Your task to perform on an android device: open app "Chime – Mobile Banking" (install if not already installed) and enter user name: "bullfrog@inbox.com" and password: "breaker" Image 0: 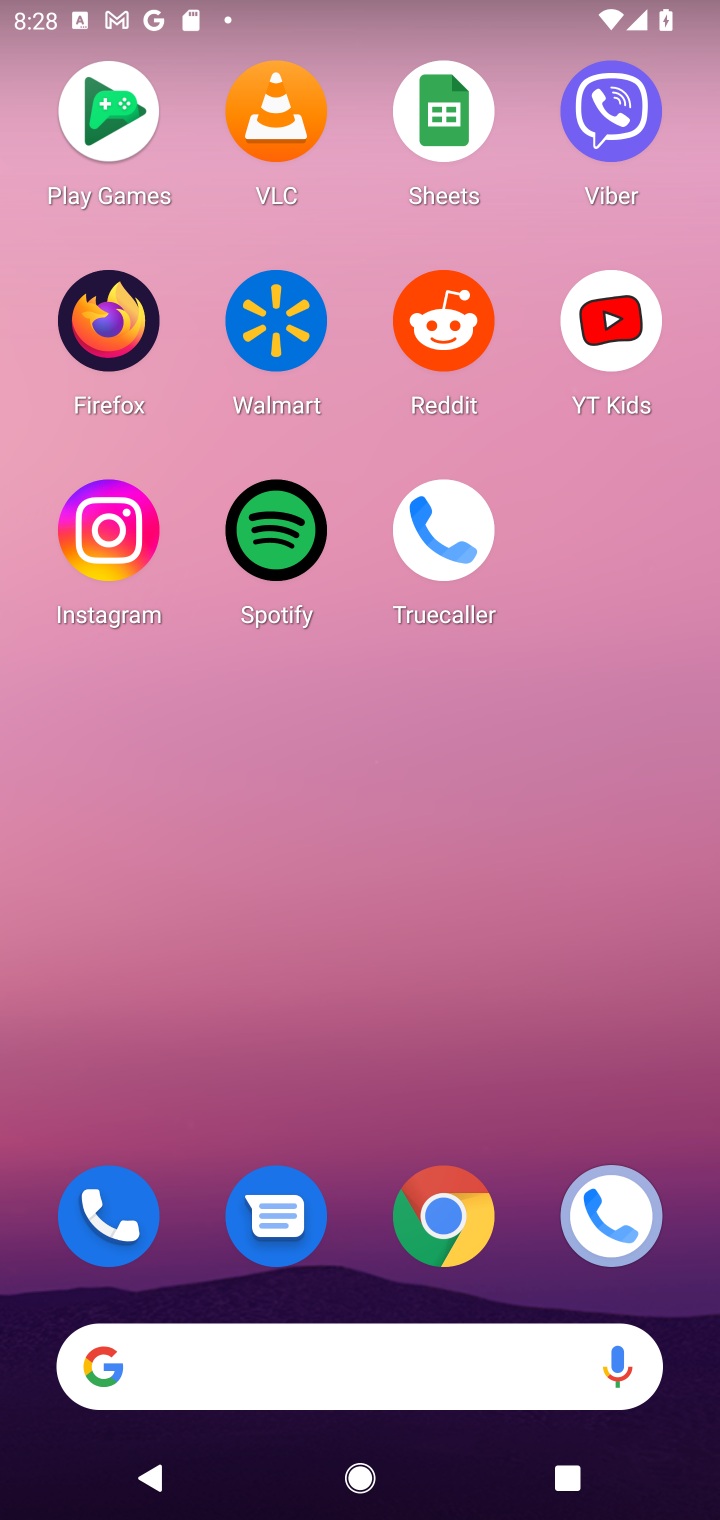
Step 0: press home button
Your task to perform on an android device: open app "Chime – Mobile Banking" (install if not already installed) and enter user name: "bullfrog@inbox.com" and password: "breaker" Image 1: 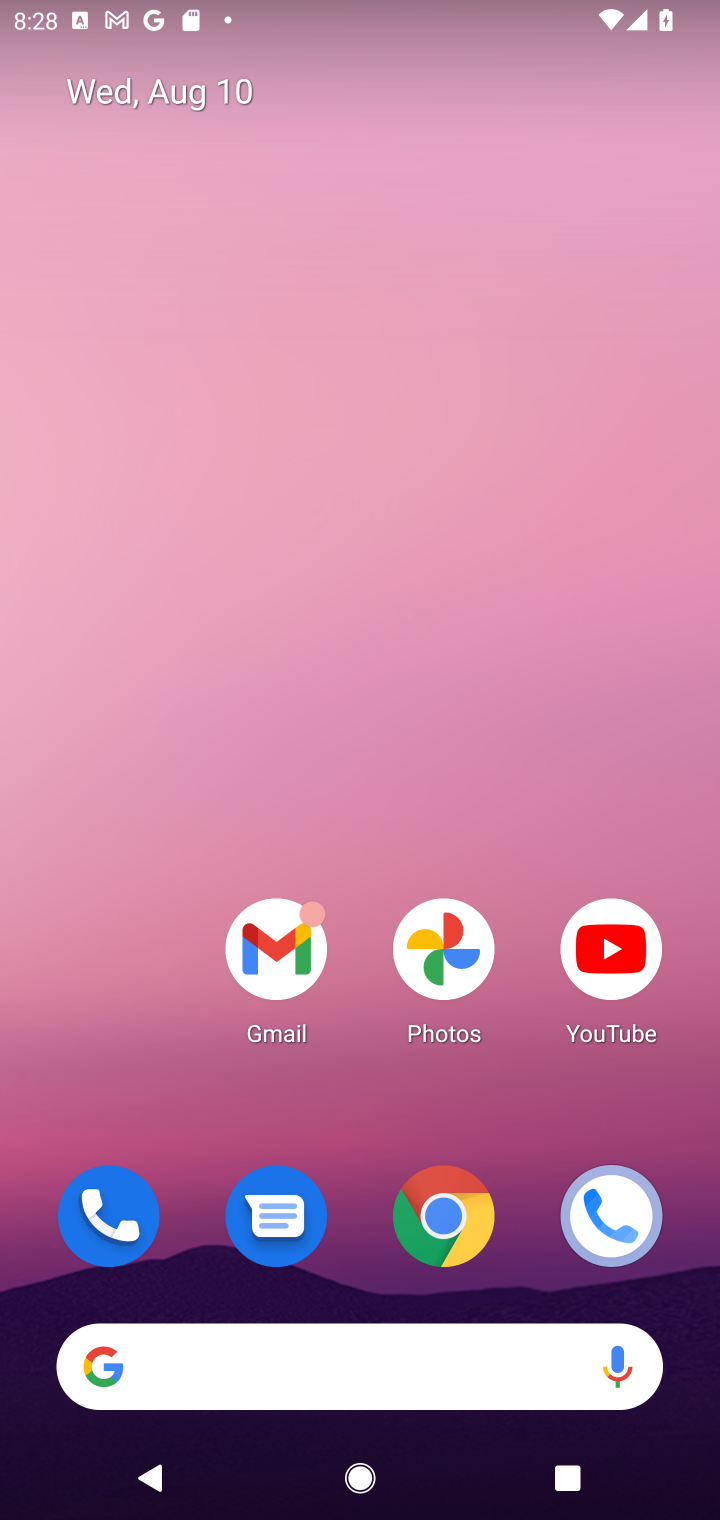
Step 1: drag from (281, 1270) to (318, 123)
Your task to perform on an android device: open app "Chime – Mobile Banking" (install if not already installed) and enter user name: "bullfrog@inbox.com" and password: "breaker" Image 2: 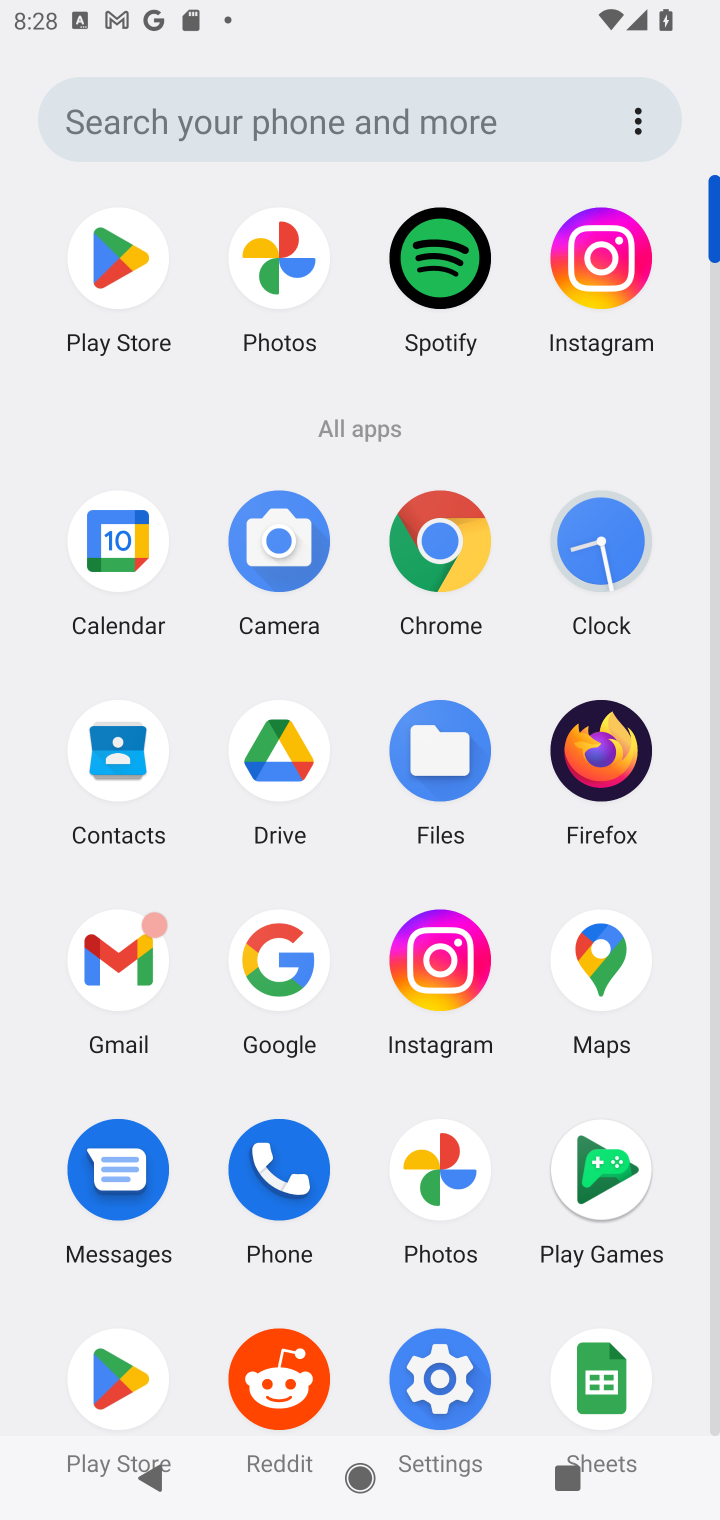
Step 2: click (131, 269)
Your task to perform on an android device: open app "Chime – Mobile Banking" (install if not already installed) and enter user name: "bullfrog@inbox.com" and password: "breaker" Image 3: 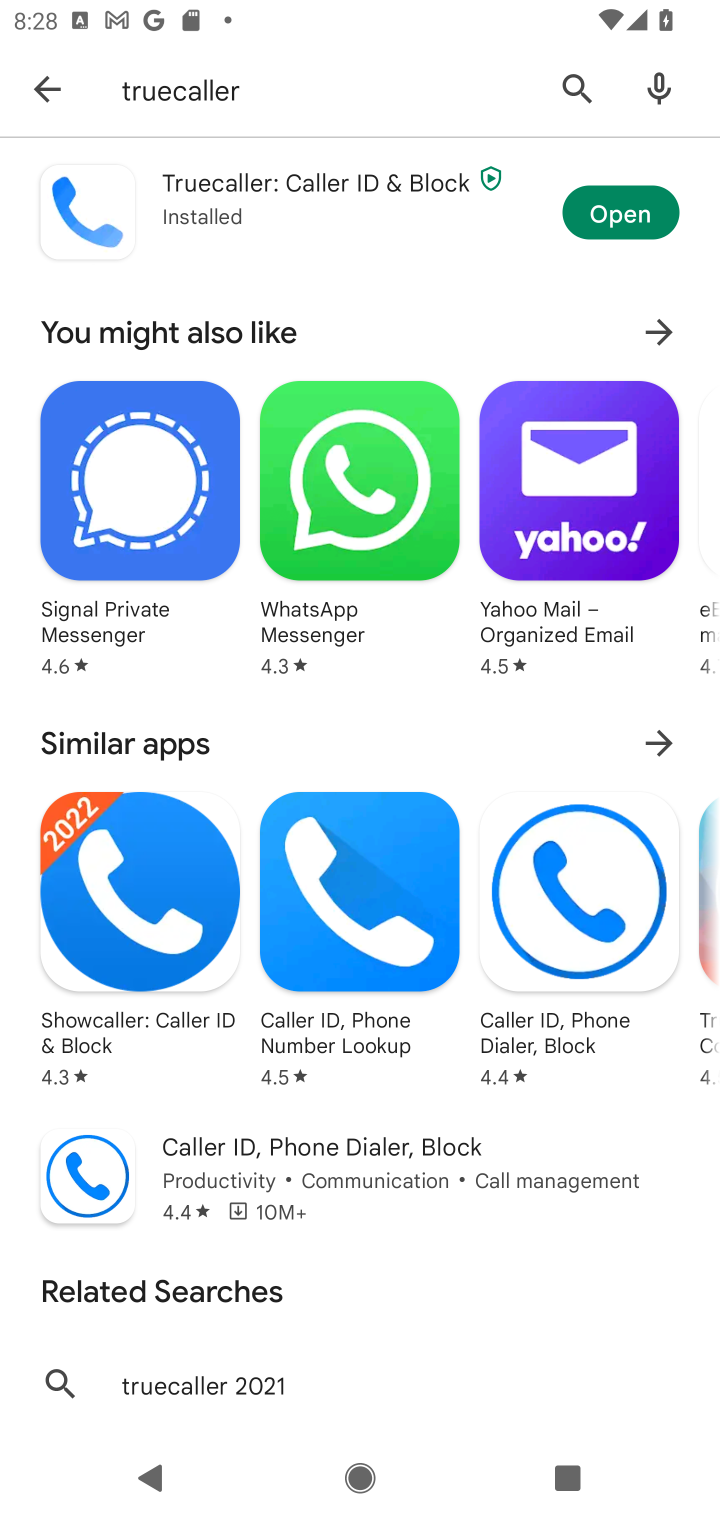
Step 3: click (585, 84)
Your task to perform on an android device: open app "Chime – Mobile Banking" (install if not already installed) and enter user name: "bullfrog@inbox.com" and password: "breaker" Image 4: 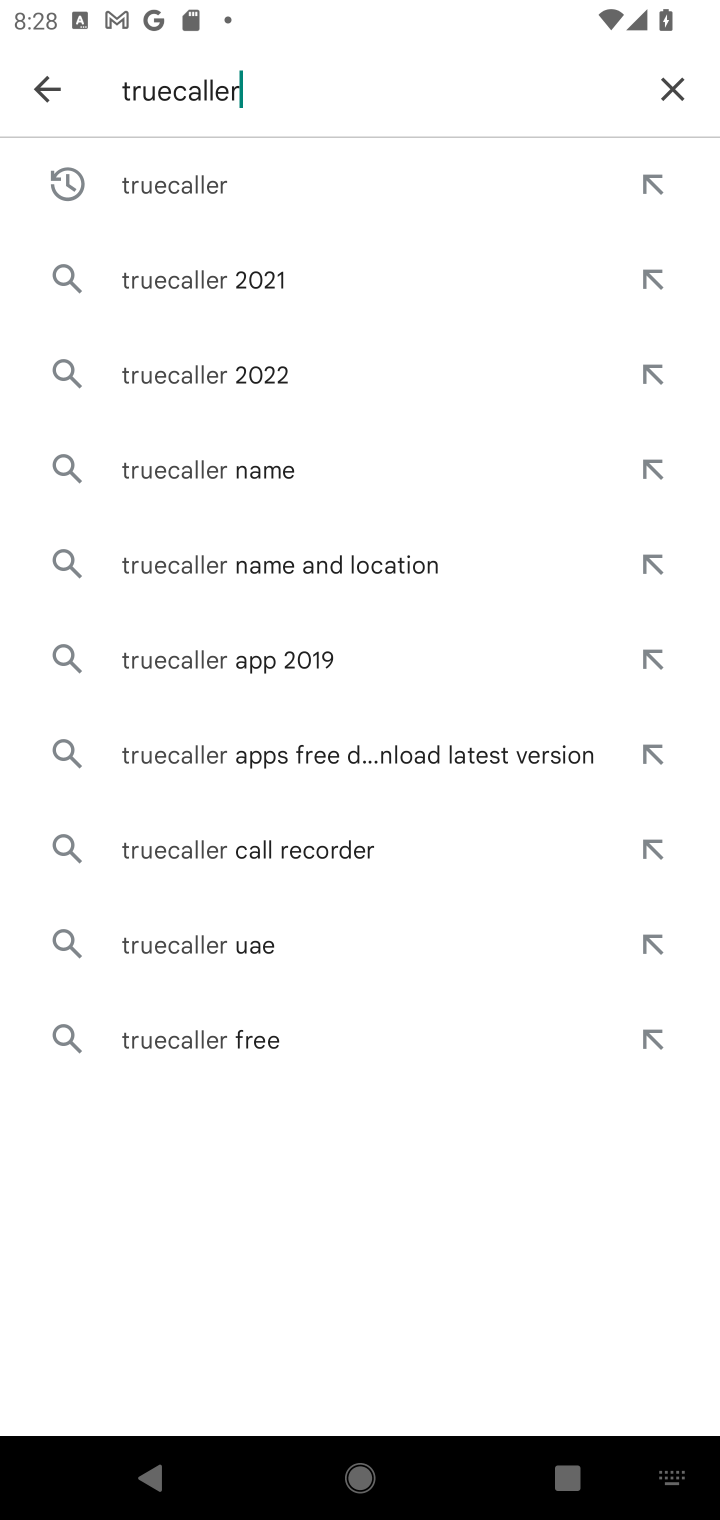
Step 4: click (668, 72)
Your task to perform on an android device: open app "Chime – Mobile Banking" (install if not already installed) and enter user name: "bullfrog@inbox.com" and password: "breaker" Image 5: 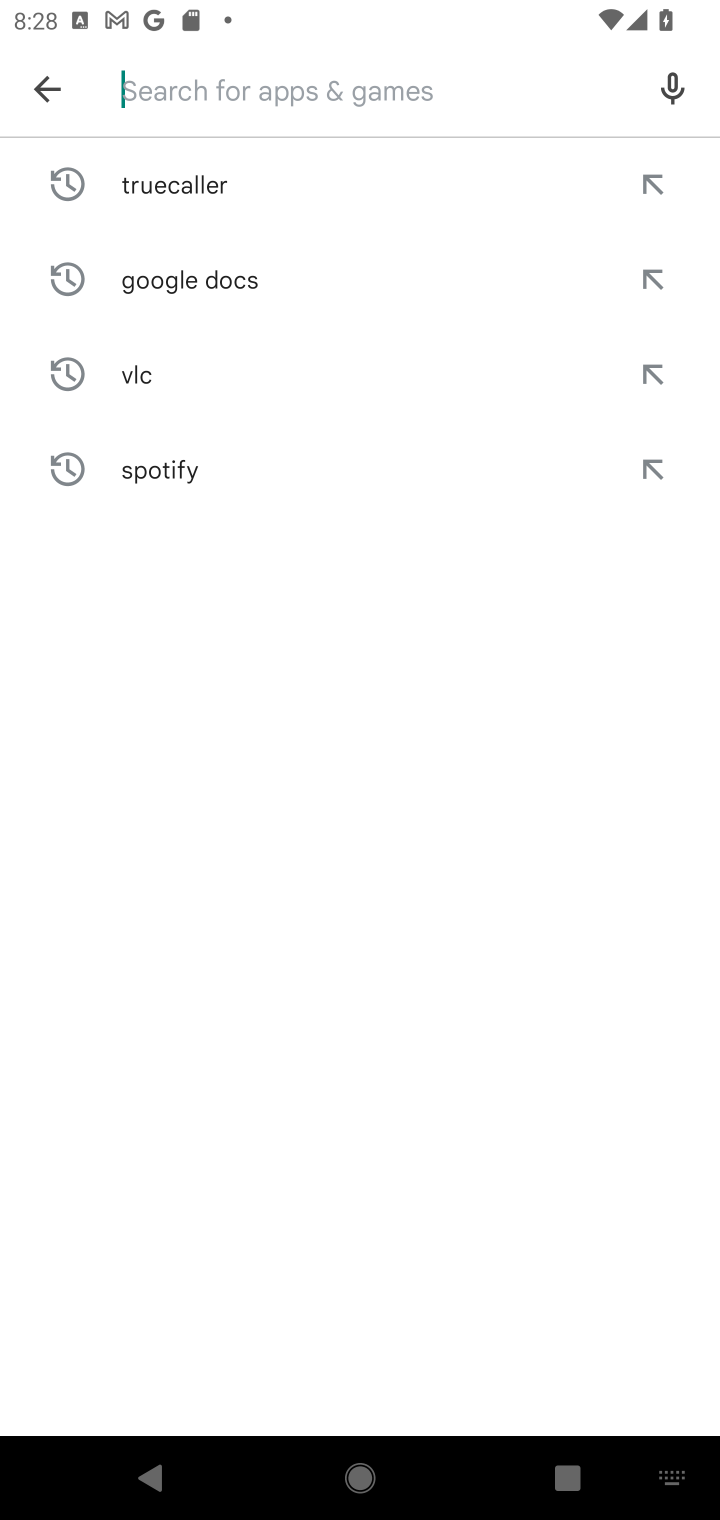
Step 5: click (227, 66)
Your task to perform on an android device: open app "Chime – Mobile Banking" (install if not already installed) and enter user name: "bullfrog@inbox.com" and password: "breaker" Image 6: 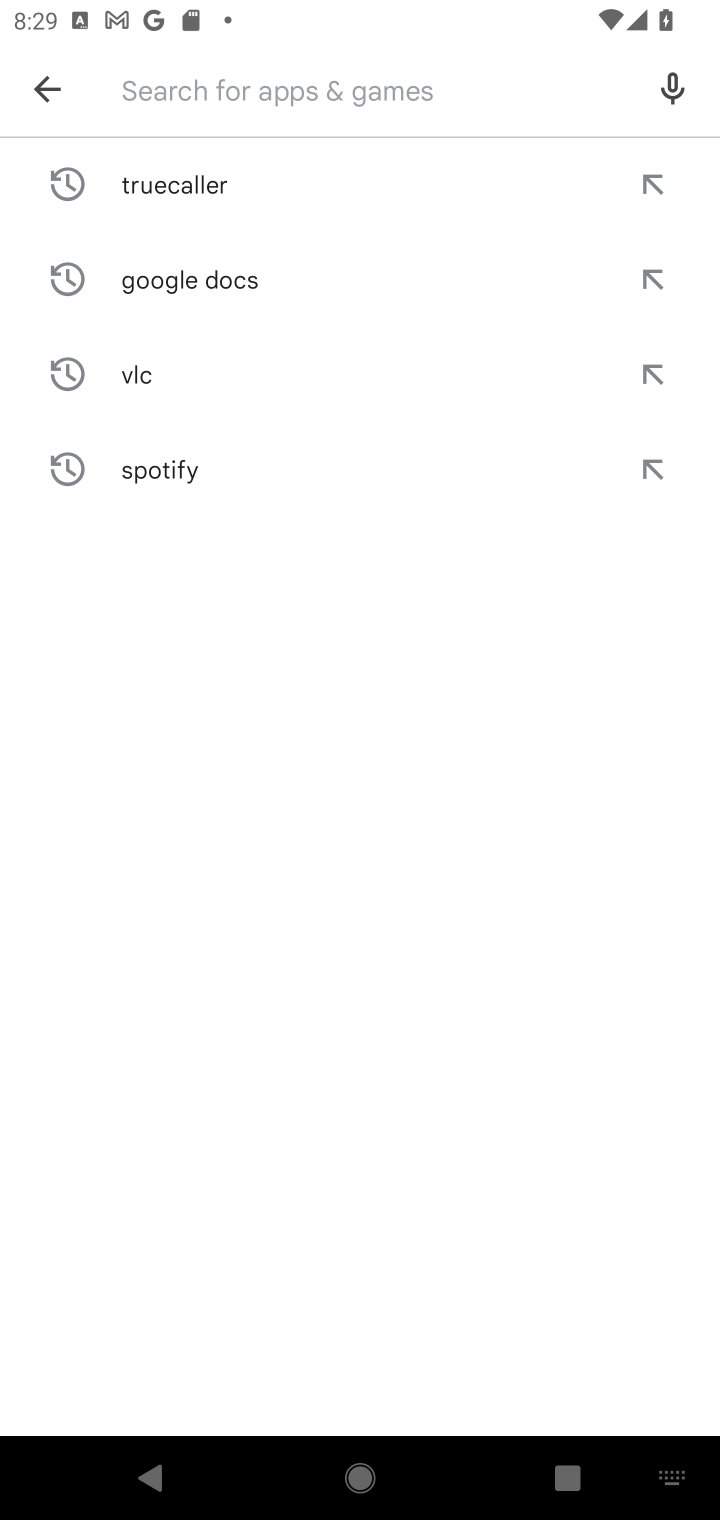
Step 6: type "Chime"
Your task to perform on an android device: open app "Chime – Mobile Banking" (install if not already installed) and enter user name: "bullfrog@inbox.com" and password: "breaker" Image 7: 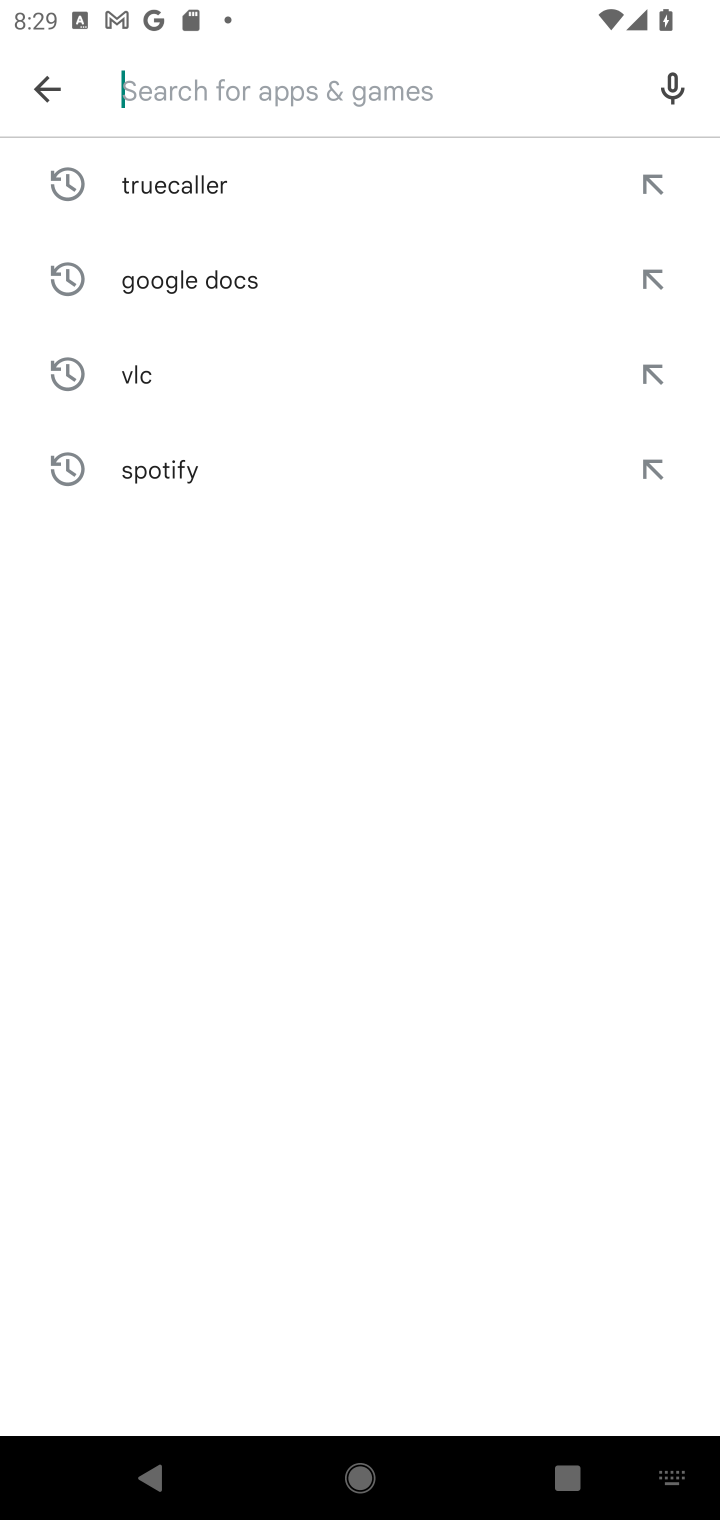
Step 7: click (347, 642)
Your task to perform on an android device: open app "Chime – Mobile Banking" (install if not already installed) and enter user name: "bullfrog@inbox.com" and password: "breaker" Image 8: 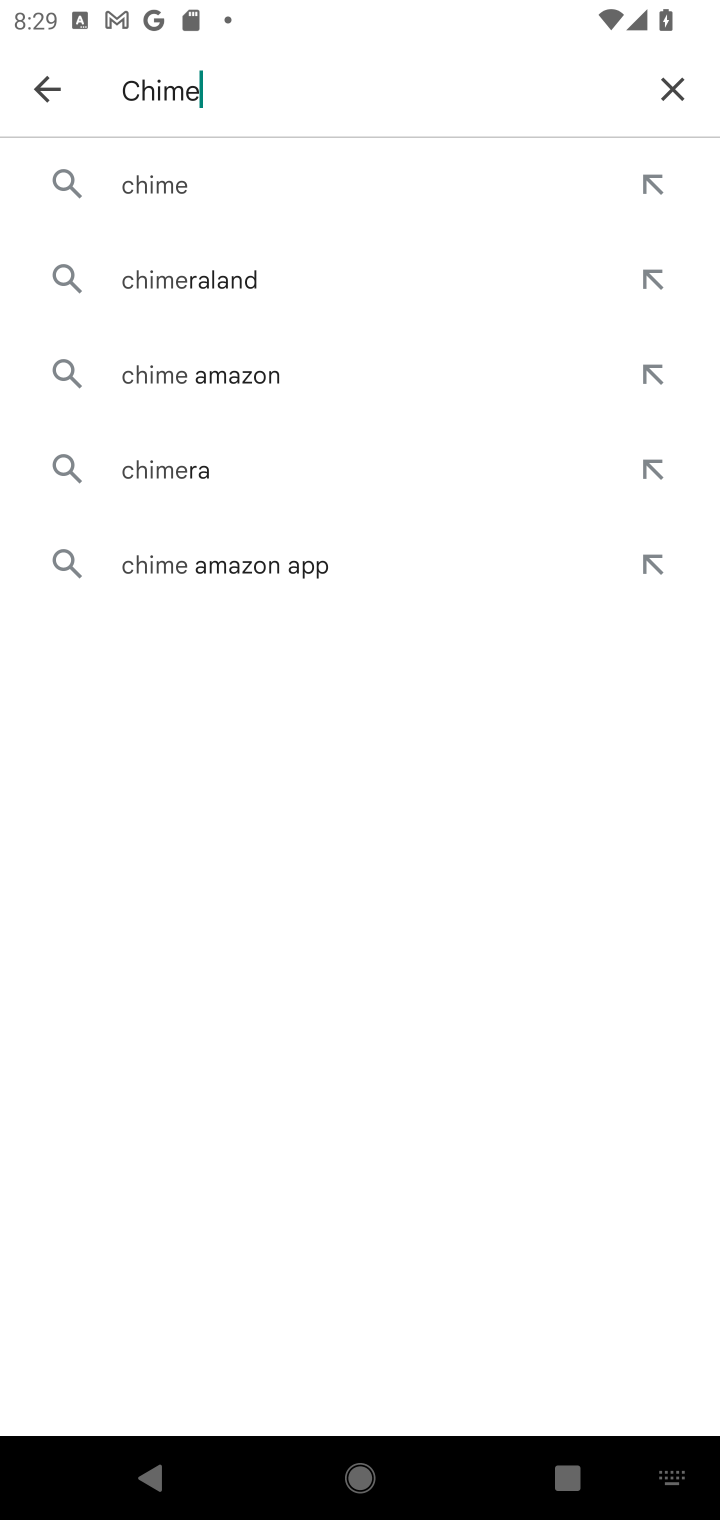
Step 8: click (151, 116)
Your task to perform on an android device: open app "Chime – Mobile Banking" (install if not already installed) and enter user name: "bullfrog@inbox.com" and password: "breaker" Image 9: 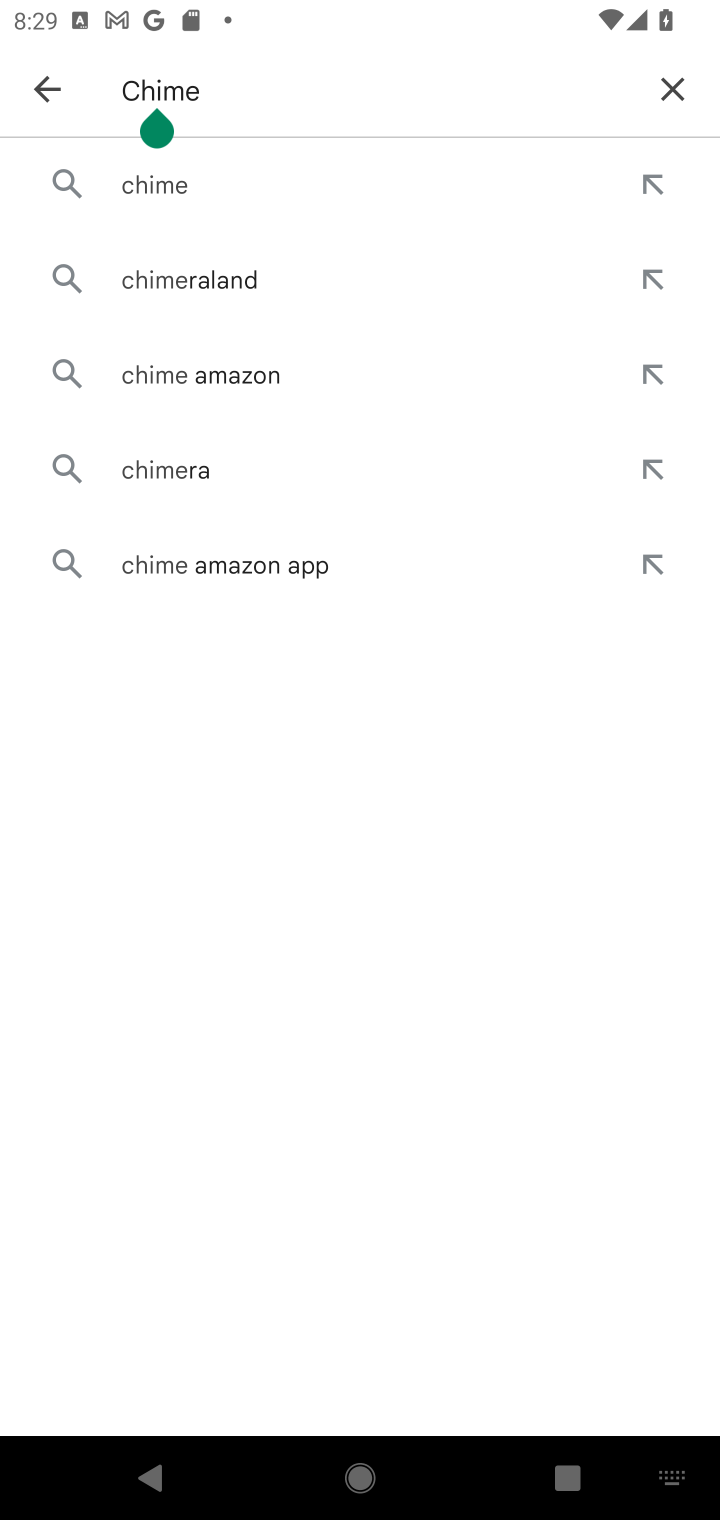
Step 9: click (169, 187)
Your task to perform on an android device: open app "Chime – Mobile Banking" (install if not already installed) and enter user name: "bullfrog@inbox.com" and password: "breaker" Image 10: 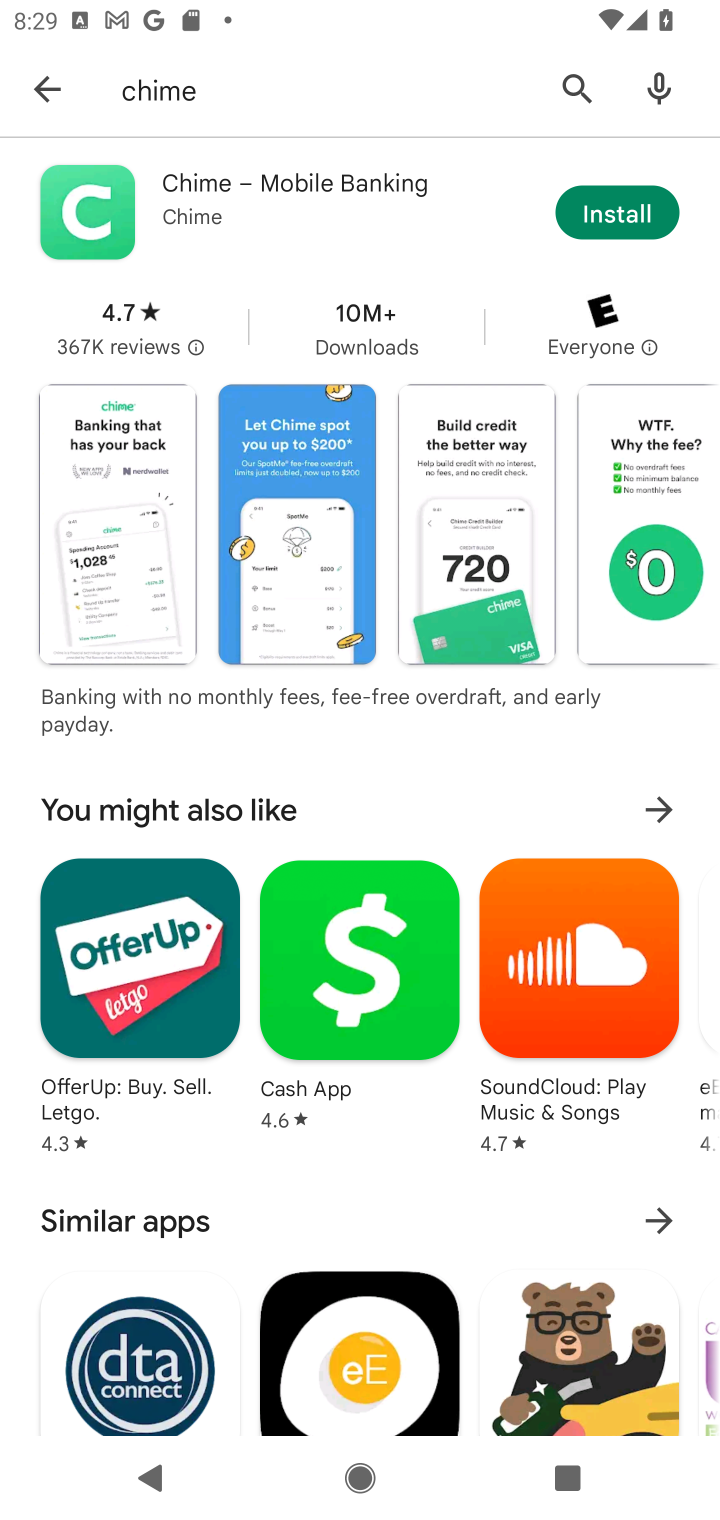
Step 10: click (612, 222)
Your task to perform on an android device: open app "Chime – Mobile Banking" (install if not already installed) and enter user name: "bullfrog@inbox.com" and password: "breaker" Image 11: 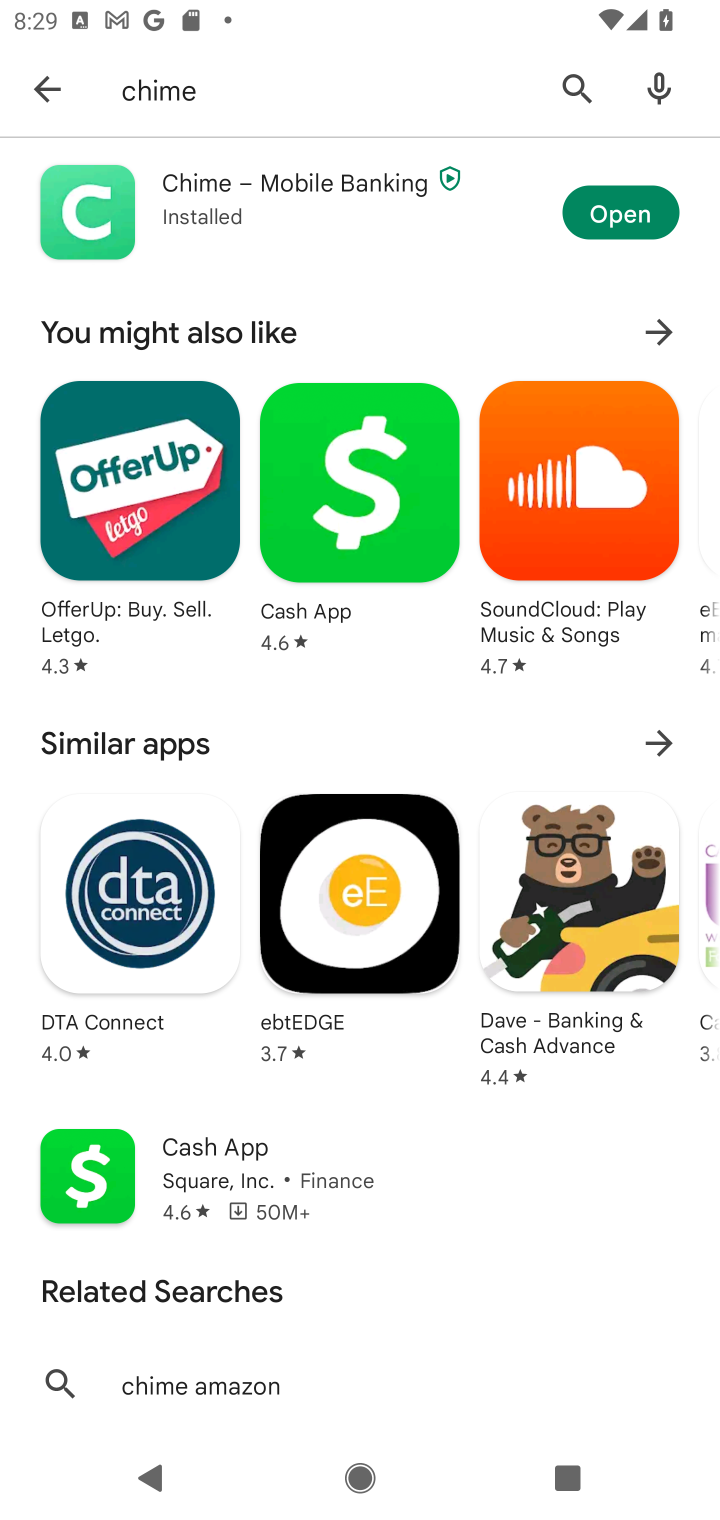
Step 11: click (620, 216)
Your task to perform on an android device: open app "Chime – Mobile Banking" (install if not already installed) and enter user name: "bullfrog@inbox.com" and password: "breaker" Image 12: 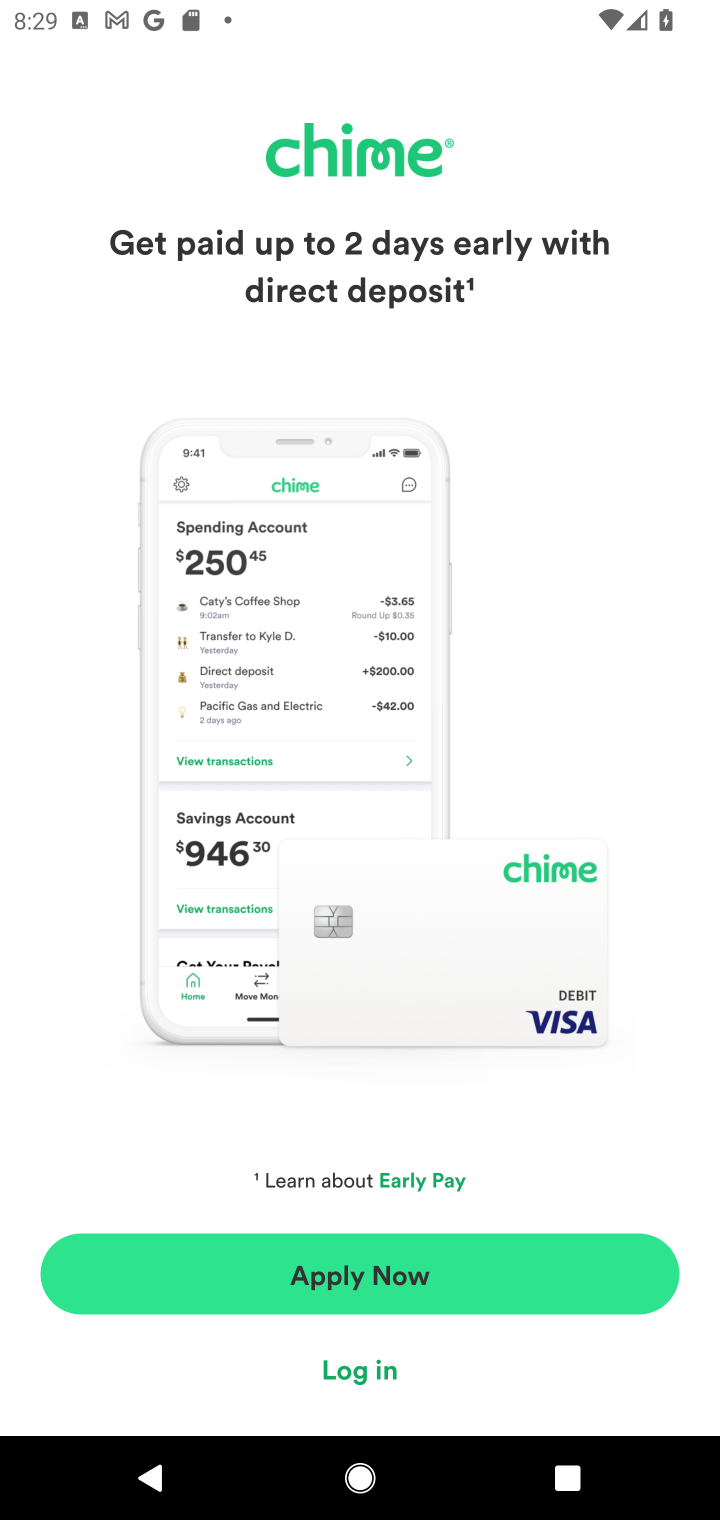
Step 12: click (382, 1364)
Your task to perform on an android device: open app "Chime – Mobile Banking" (install if not already installed) and enter user name: "bullfrog@inbox.com" and password: "breaker" Image 13: 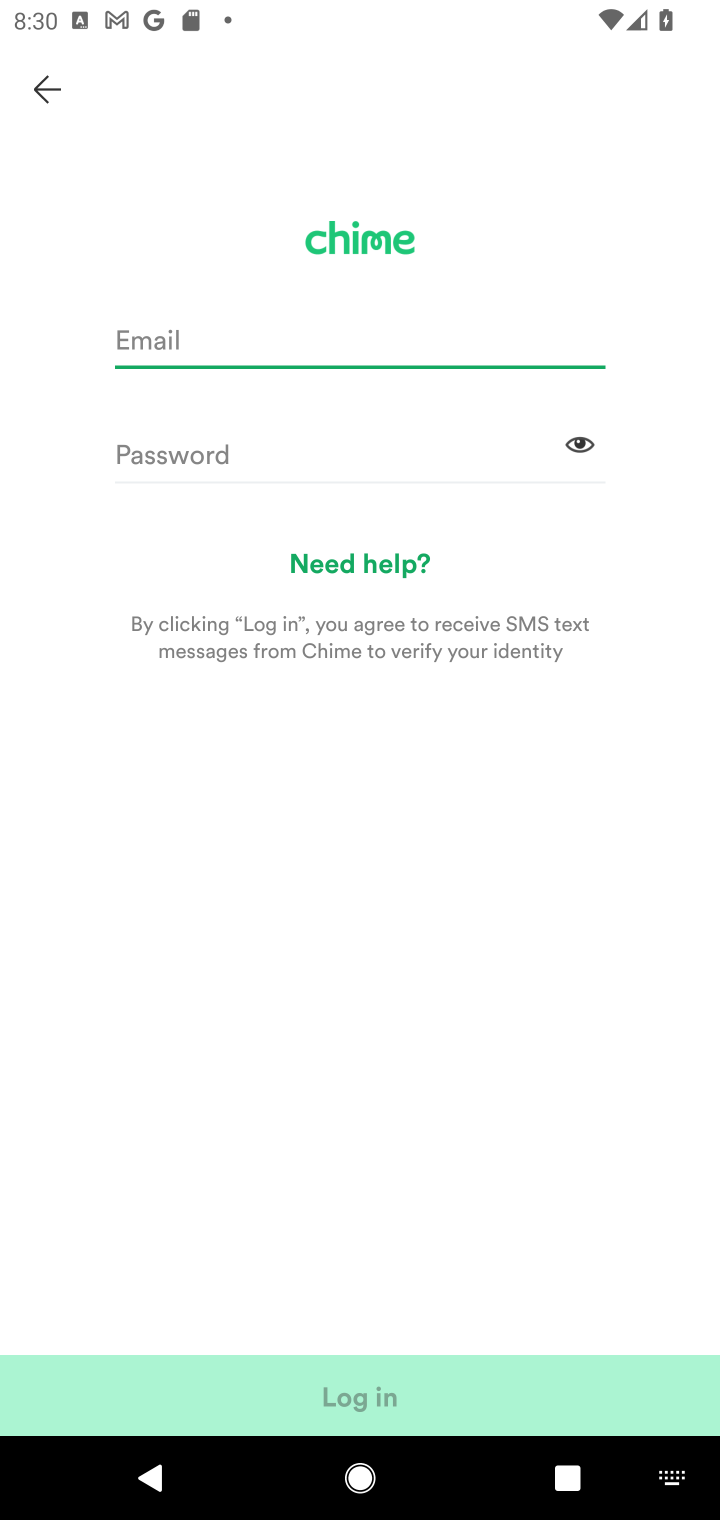
Step 13: click (181, 309)
Your task to perform on an android device: open app "Chime – Mobile Banking" (install if not already installed) and enter user name: "bullfrog@inbox.com" and password: "breaker" Image 14: 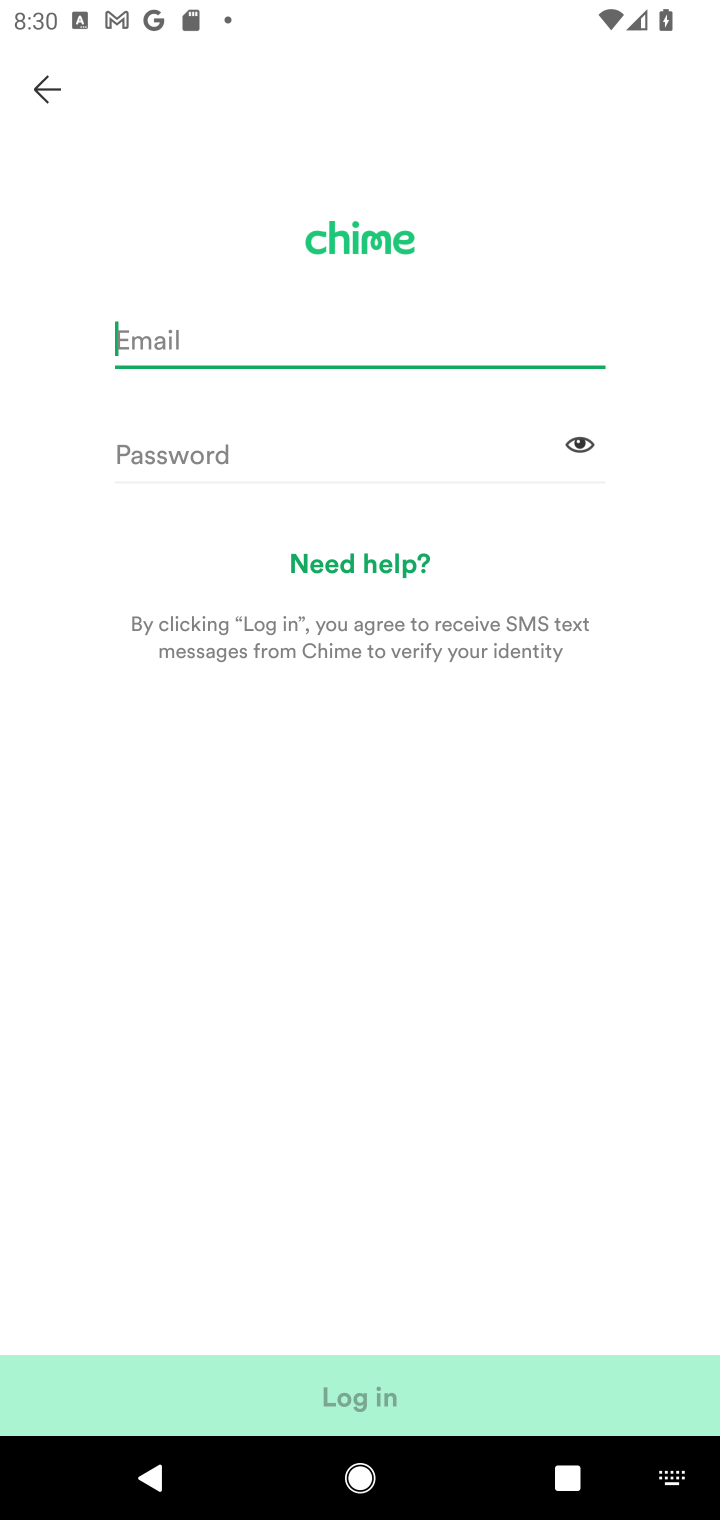
Step 14: type "bullfrog@inbox.com"
Your task to perform on an android device: open app "Chime – Mobile Banking" (install if not already installed) and enter user name: "bullfrog@inbox.com" and password: "breaker" Image 15: 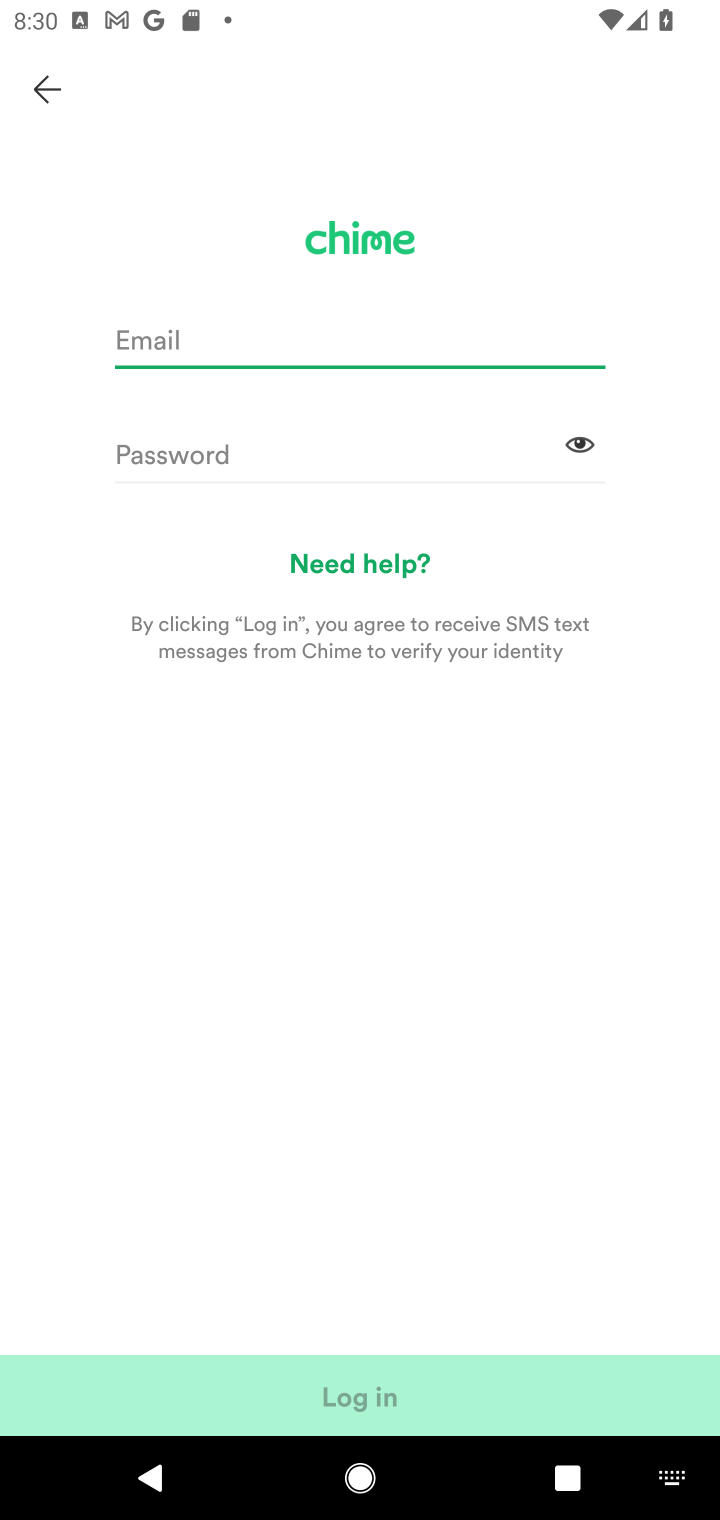
Step 15: click (213, 987)
Your task to perform on an android device: open app "Chime – Mobile Banking" (install if not already installed) and enter user name: "bullfrog@inbox.com" and password: "breaker" Image 16: 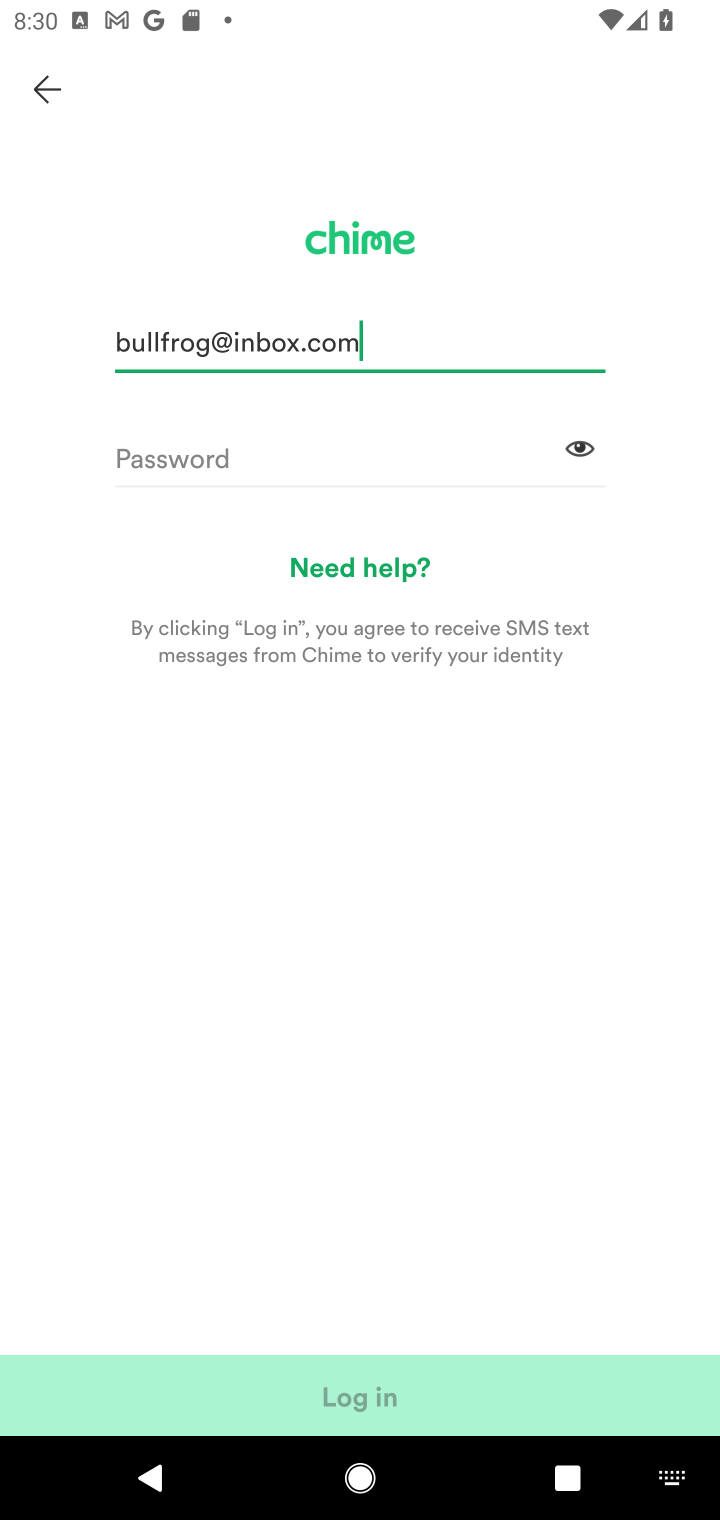
Step 16: click (155, 431)
Your task to perform on an android device: open app "Chime – Mobile Banking" (install if not already installed) and enter user name: "bullfrog@inbox.com" and password: "breaker" Image 17: 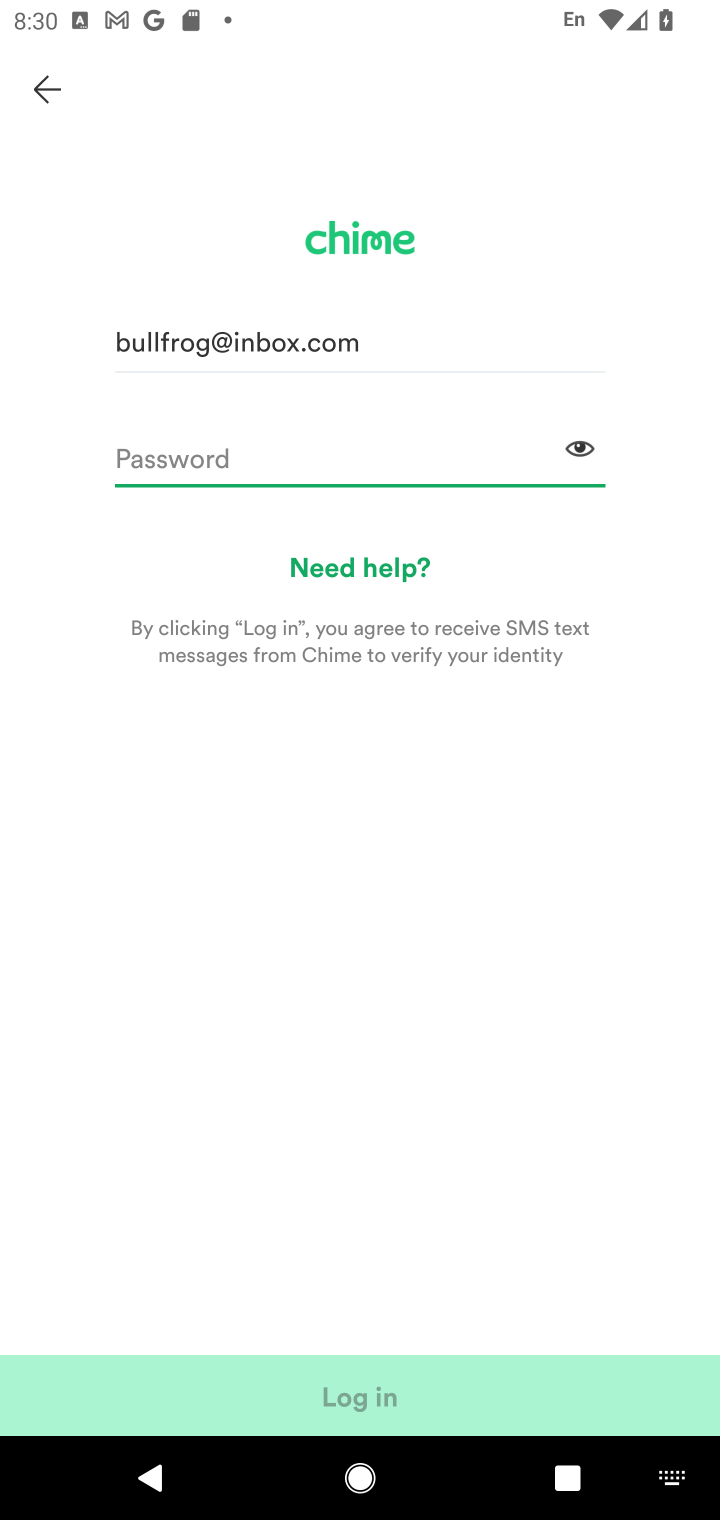
Step 17: type "breaker"
Your task to perform on an android device: open app "Chime – Mobile Banking" (install if not already installed) and enter user name: "bullfrog@inbox.com" and password: "breaker" Image 18: 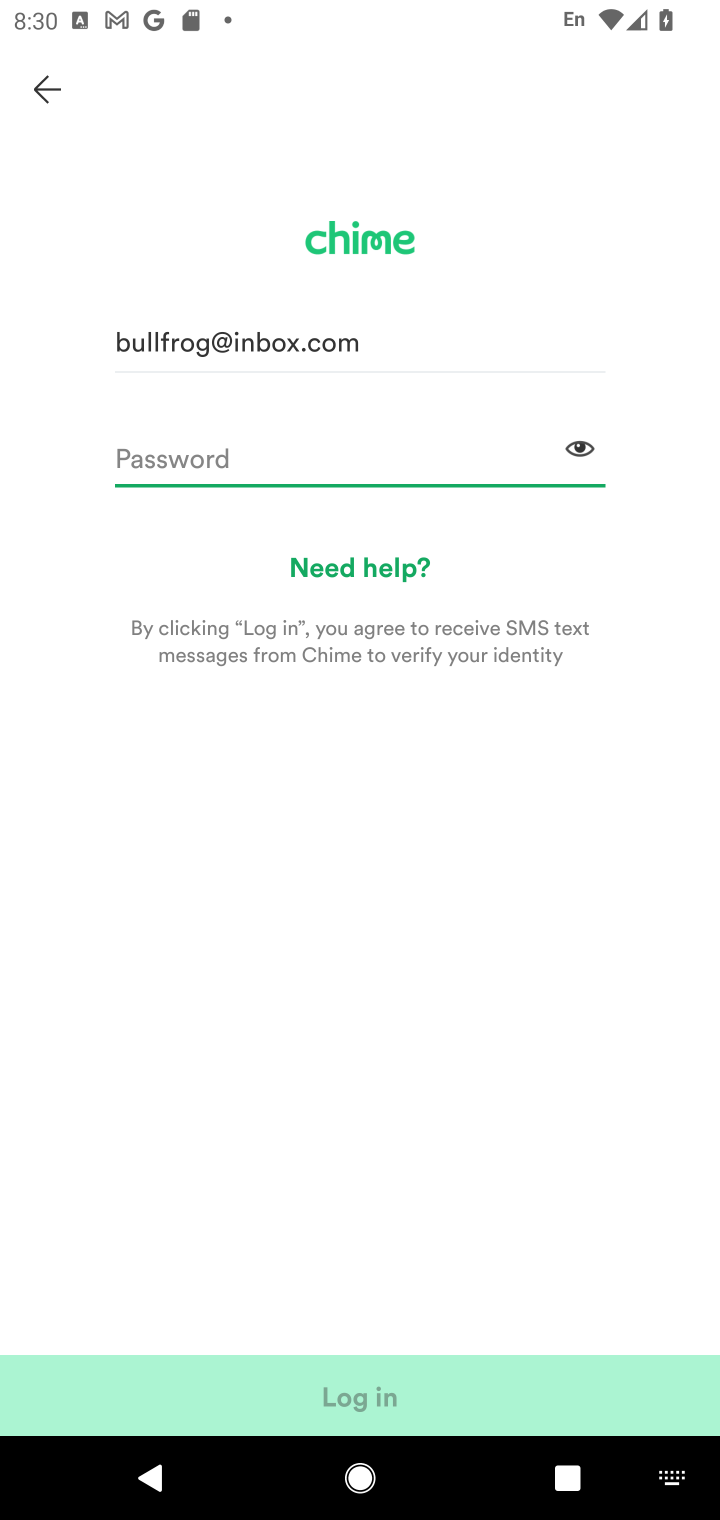
Step 18: click (421, 953)
Your task to perform on an android device: open app "Chime – Mobile Banking" (install if not already installed) and enter user name: "bullfrog@inbox.com" and password: "breaker" Image 19: 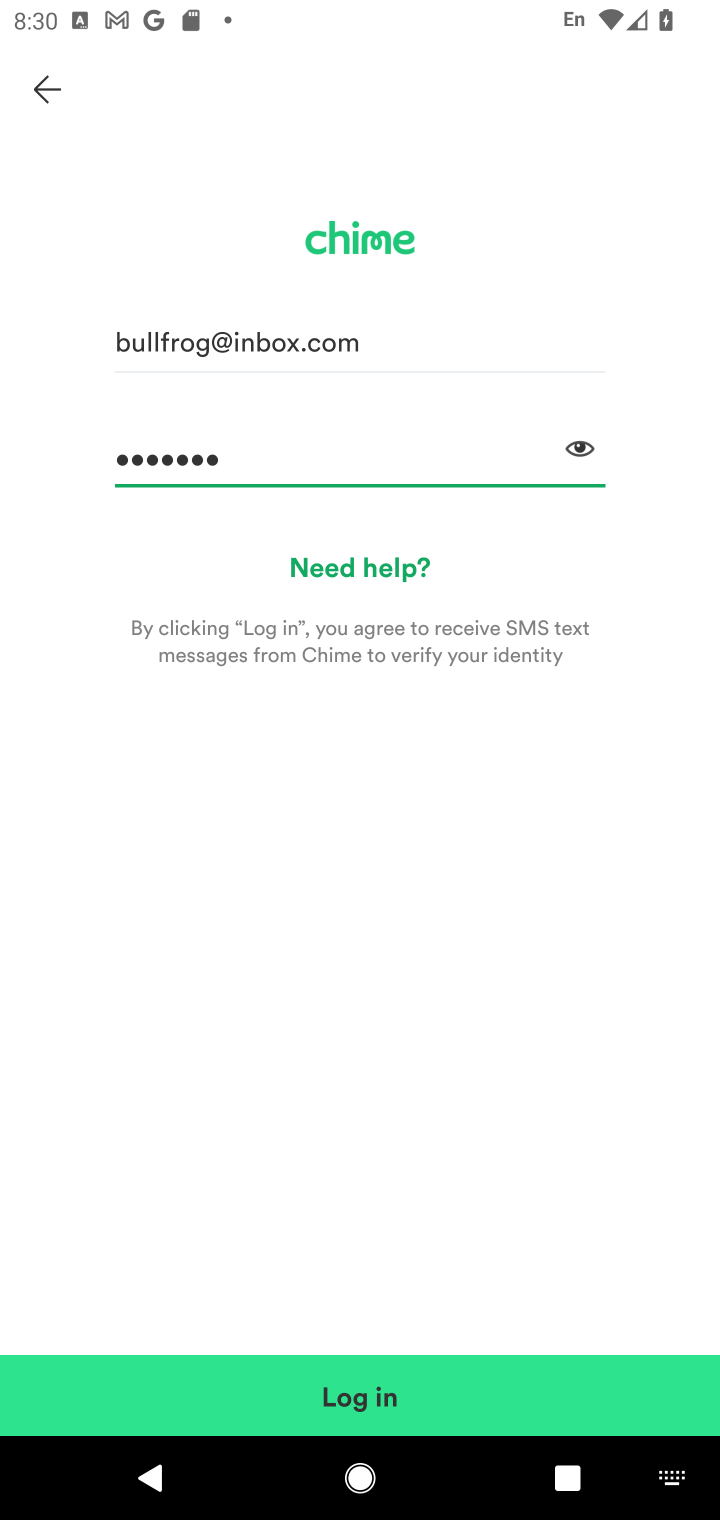
Step 19: click (370, 1377)
Your task to perform on an android device: open app "Chime – Mobile Banking" (install if not already installed) and enter user name: "bullfrog@inbox.com" and password: "breaker" Image 20: 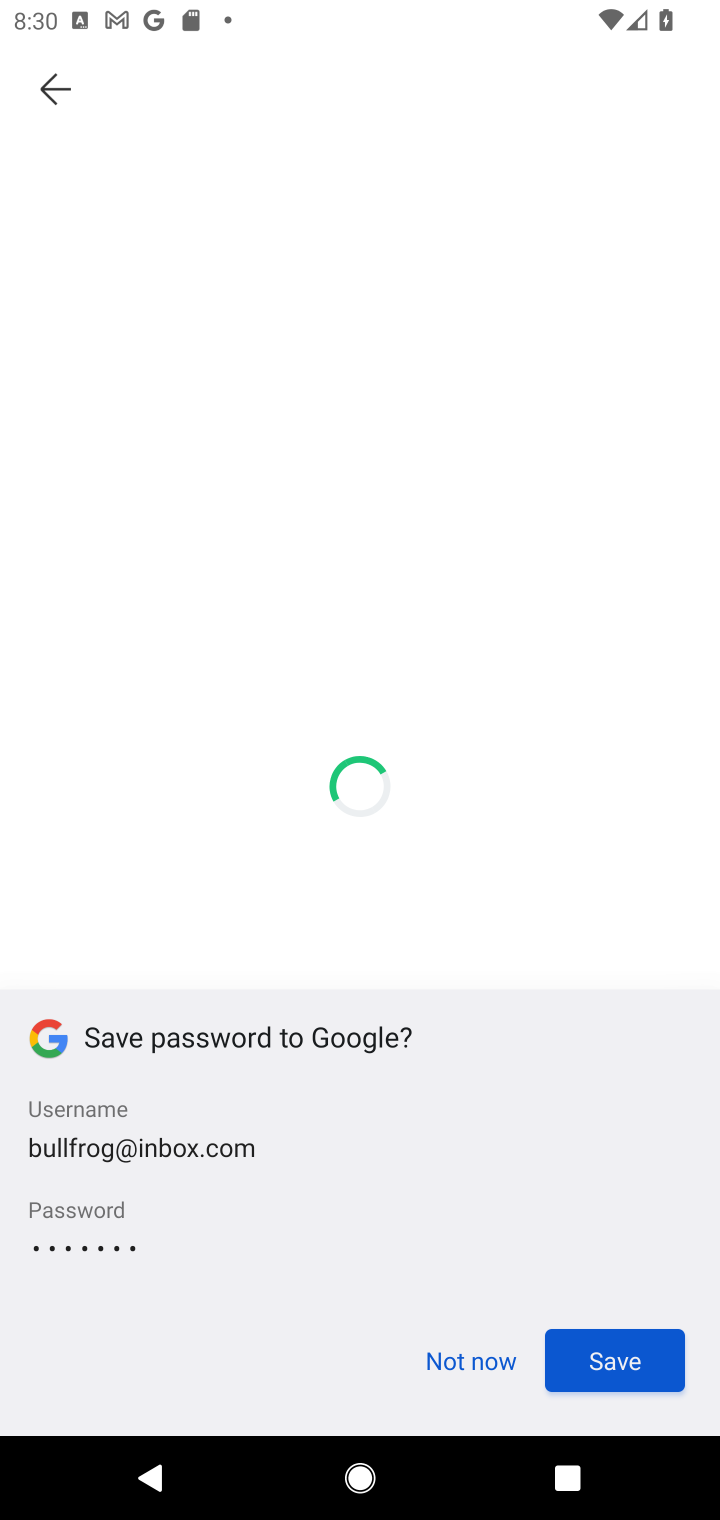
Step 20: click (439, 1336)
Your task to perform on an android device: open app "Chime – Mobile Banking" (install if not already installed) and enter user name: "bullfrog@inbox.com" and password: "breaker" Image 21: 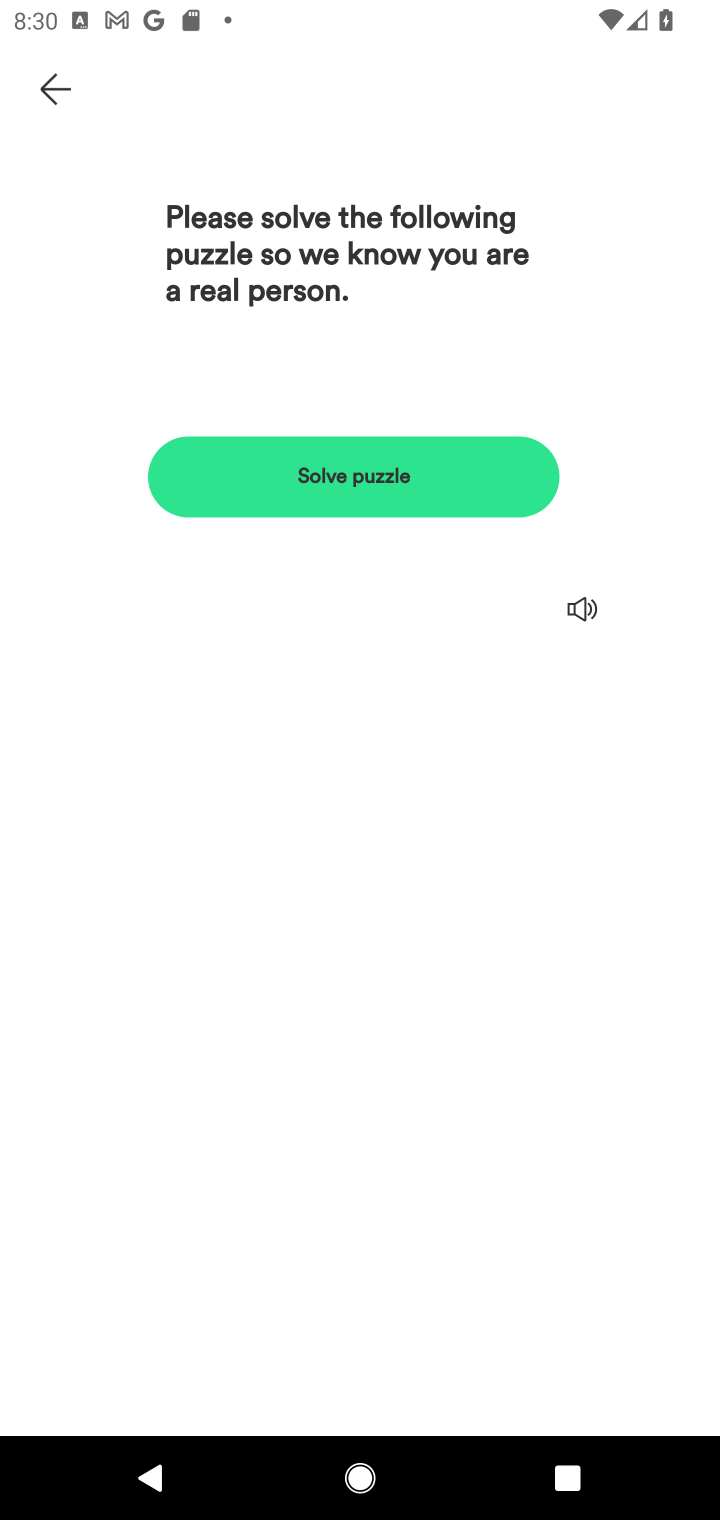
Step 21: task complete